Your task to perform on an android device: remove spam from my inbox in the gmail app Image 0: 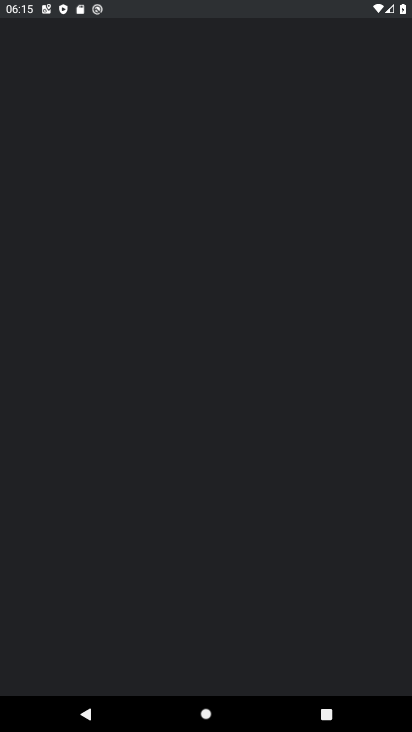
Step 0: drag from (266, 600) to (327, 167)
Your task to perform on an android device: remove spam from my inbox in the gmail app Image 1: 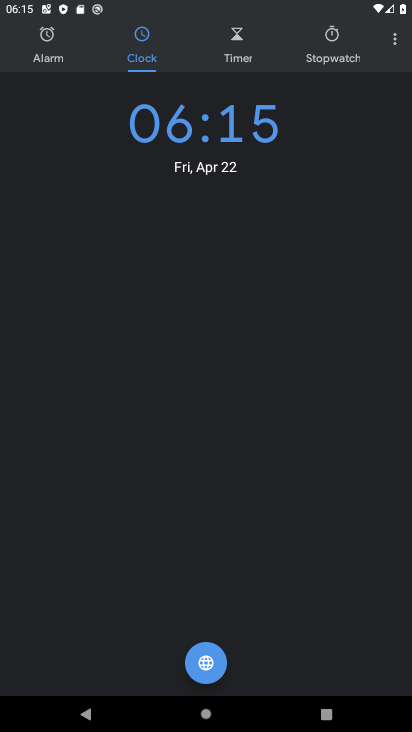
Step 1: press home button
Your task to perform on an android device: remove spam from my inbox in the gmail app Image 2: 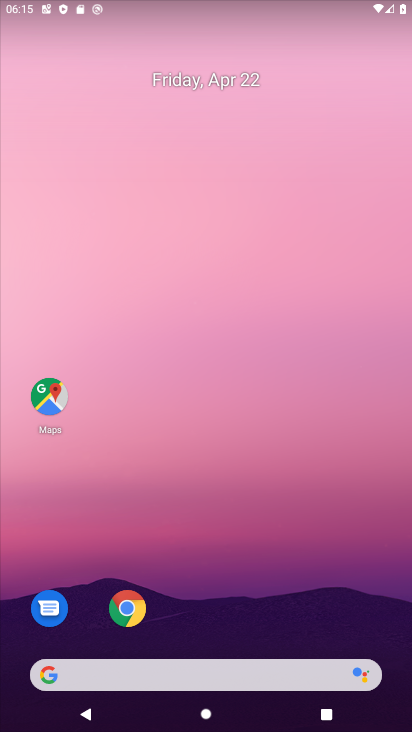
Step 2: click (117, 616)
Your task to perform on an android device: remove spam from my inbox in the gmail app Image 3: 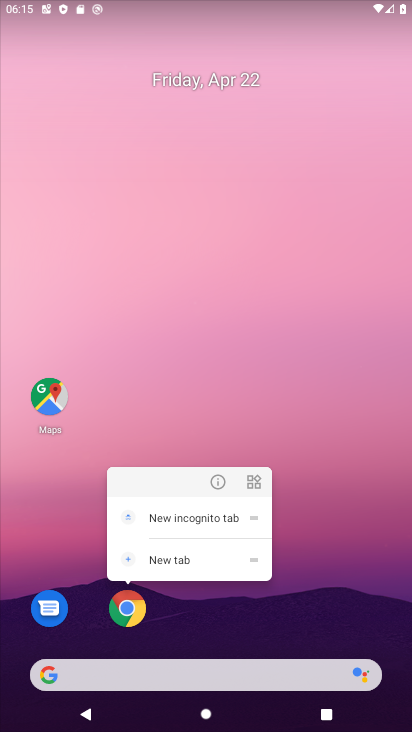
Step 3: click (126, 616)
Your task to perform on an android device: remove spam from my inbox in the gmail app Image 4: 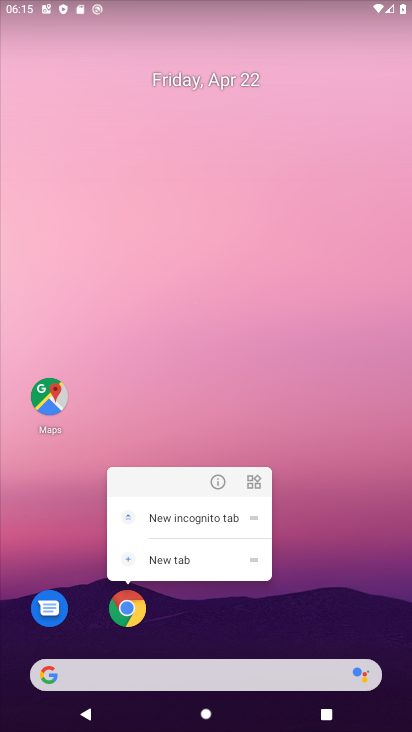
Step 4: click (120, 607)
Your task to perform on an android device: remove spam from my inbox in the gmail app Image 5: 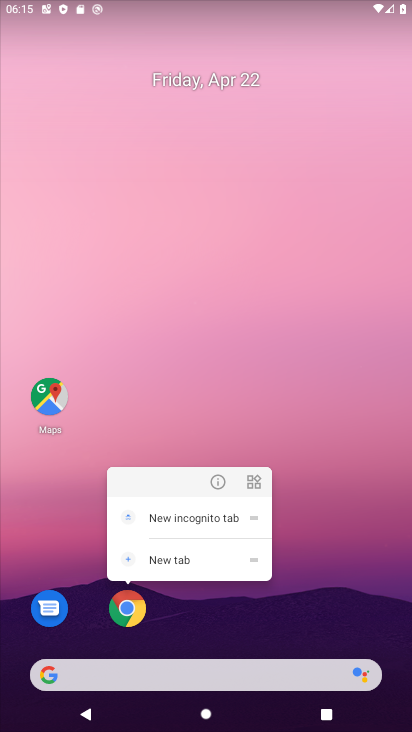
Step 5: click (125, 612)
Your task to perform on an android device: remove spam from my inbox in the gmail app Image 6: 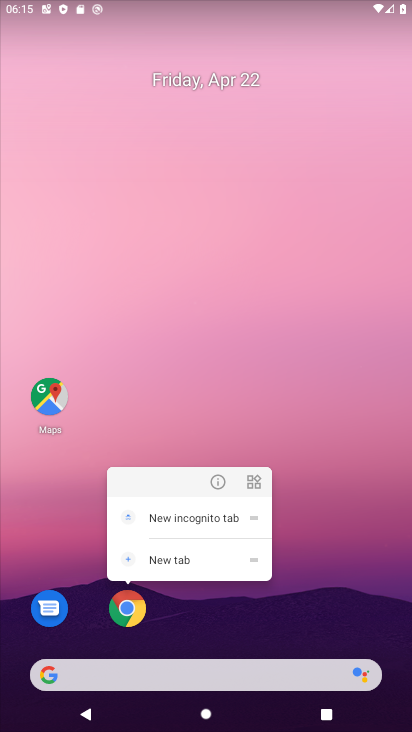
Step 6: click (127, 611)
Your task to perform on an android device: remove spam from my inbox in the gmail app Image 7: 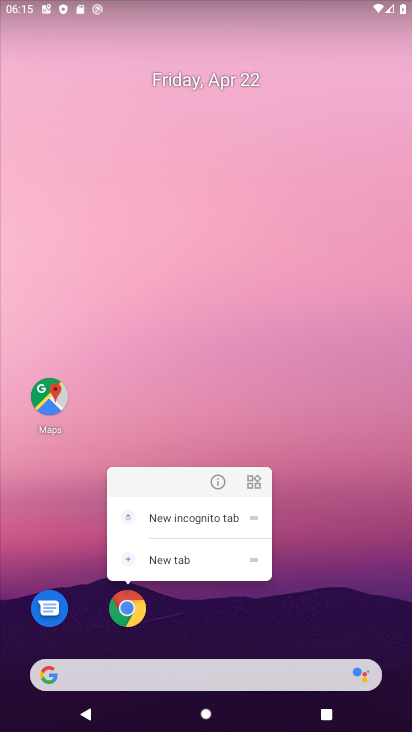
Step 7: click (130, 608)
Your task to perform on an android device: remove spam from my inbox in the gmail app Image 8: 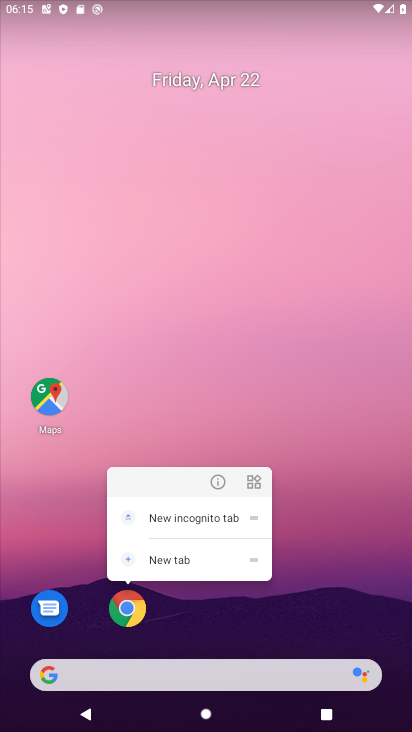
Step 8: click (129, 597)
Your task to perform on an android device: remove spam from my inbox in the gmail app Image 9: 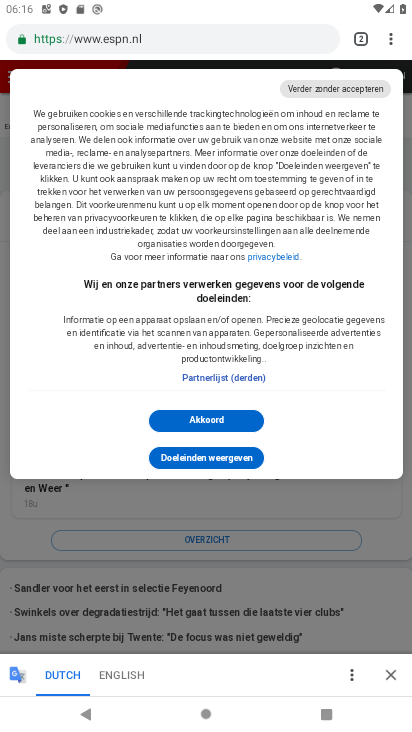
Step 9: press home button
Your task to perform on an android device: remove spam from my inbox in the gmail app Image 10: 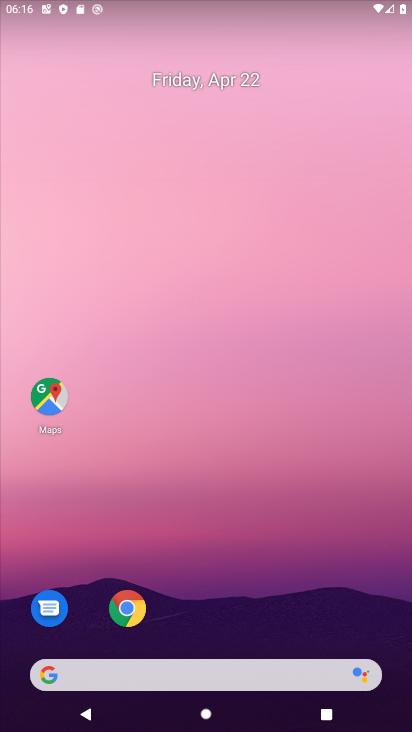
Step 10: drag from (274, 605) to (223, 178)
Your task to perform on an android device: remove spam from my inbox in the gmail app Image 11: 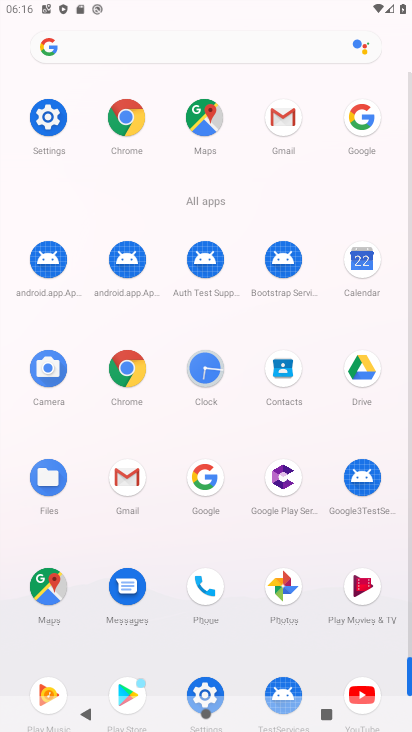
Step 11: click (281, 119)
Your task to perform on an android device: remove spam from my inbox in the gmail app Image 12: 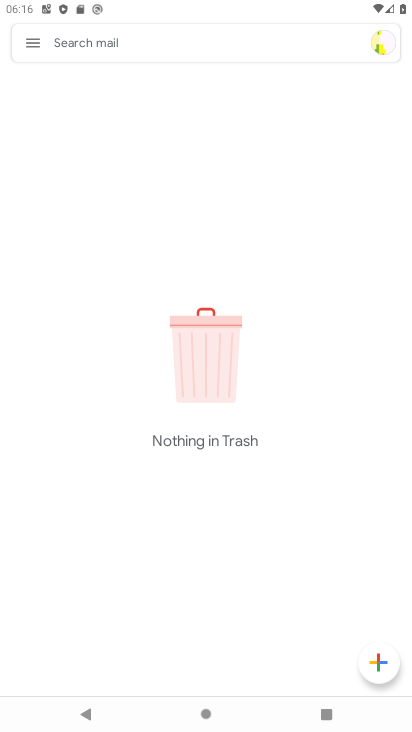
Step 12: click (36, 45)
Your task to perform on an android device: remove spam from my inbox in the gmail app Image 13: 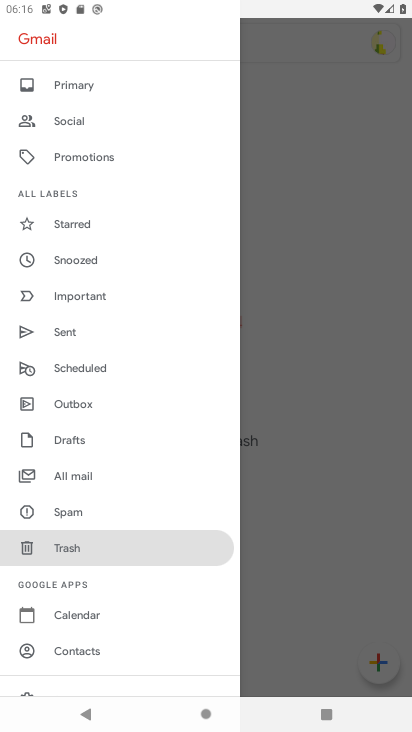
Step 13: click (62, 519)
Your task to perform on an android device: remove spam from my inbox in the gmail app Image 14: 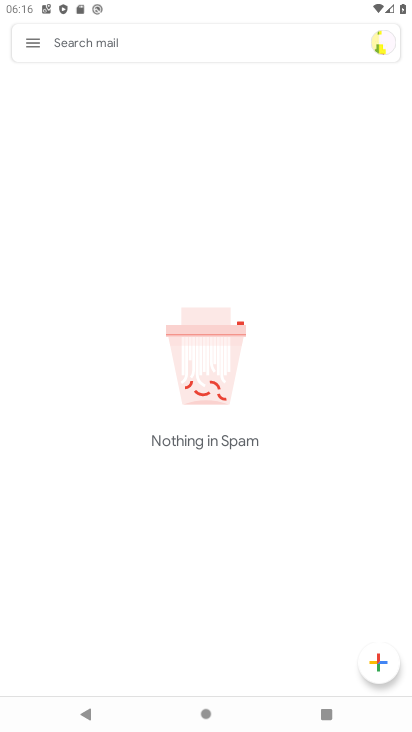
Step 14: task complete